Your task to perform on an android device: Go to Android settings Image 0: 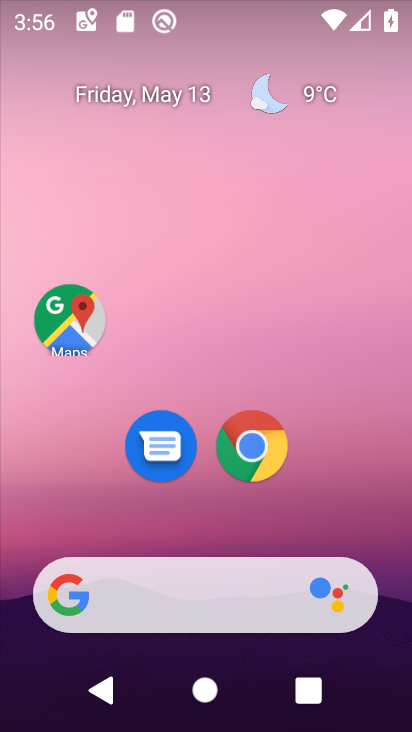
Step 0: drag from (236, 539) to (233, 69)
Your task to perform on an android device: Go to Android settings Image 1: 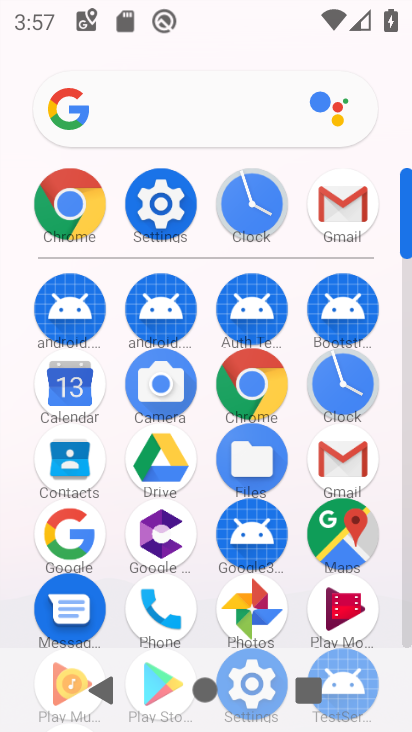
Step 1: click (155, 222)
Your task to perform on an android device: Go to Android settings Image 2: 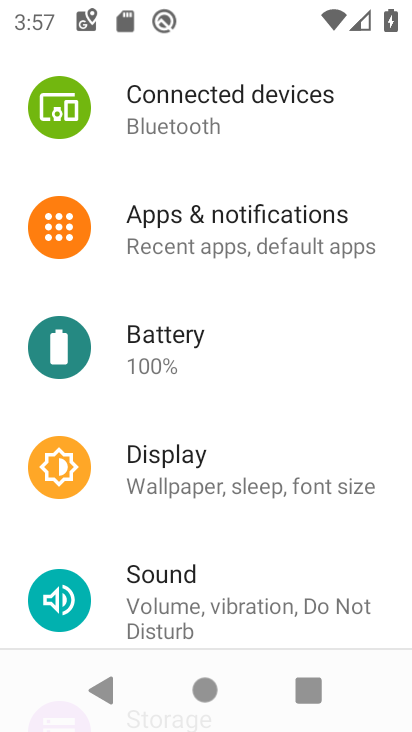
Step 2: drag from (198, 549) to (202, 166)
Your task to perform on an android device: Go to Android settings Image 3: 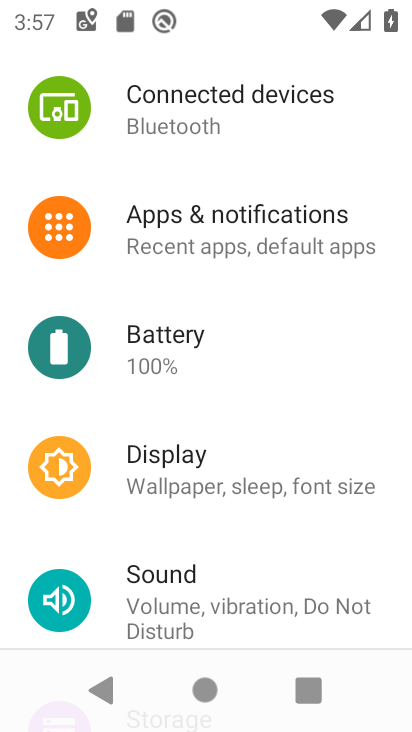
Step 3: drag from (195, 516) to (184, 190)
Your task to perform on an android device: Go to Android settings Image 4: 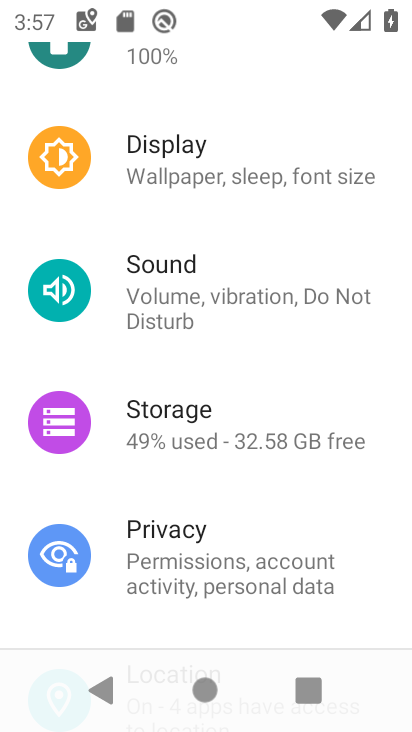
Step 4: drag from (208, 471) to (189, 131)
Your task to perform on an android device: Go to Android settings Image 5: 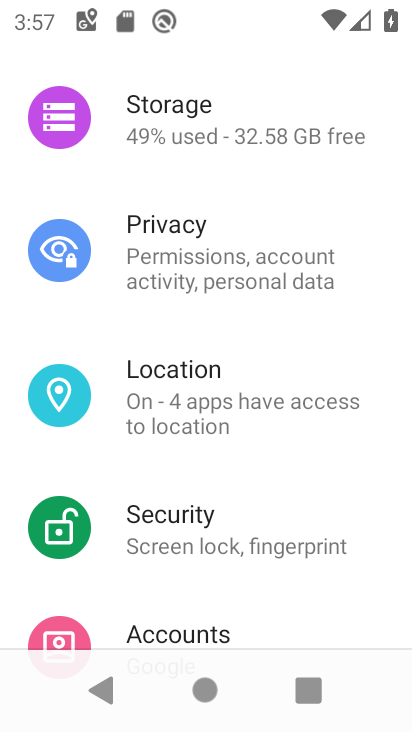
Step 5: drag from (193, 496) to (154, 165)
Your task to perform on an android device: Go to Android settings Image 6: 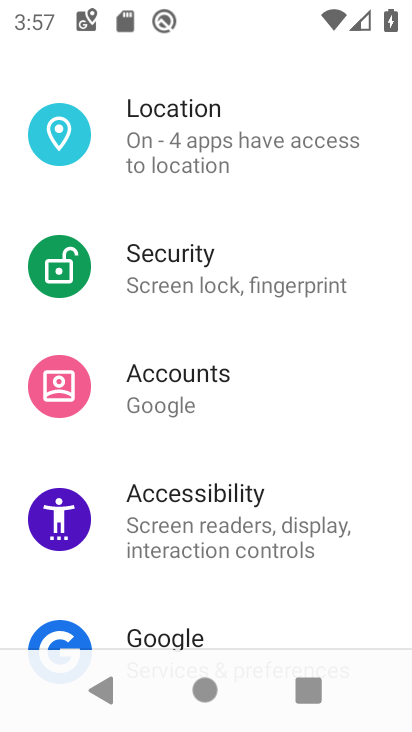
Step 6: drag from (185, 548) to (205, 162)
Your task to perform on an android device: Go to Android settings Image 7: 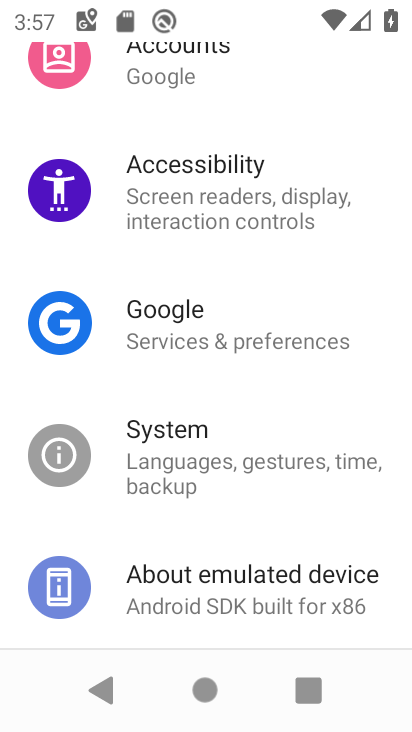
Step 7: click (158, 473)
Your task to perform on an android device: Go to Android settings Image 8: 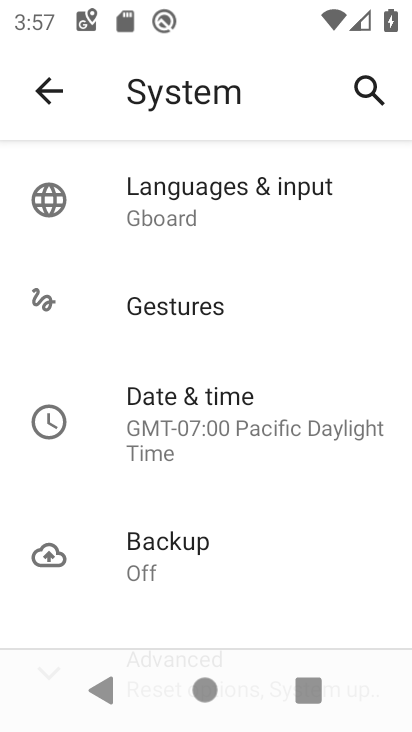
Step 8: task complete